Your task to perform on an android device: check battery use Image 0: 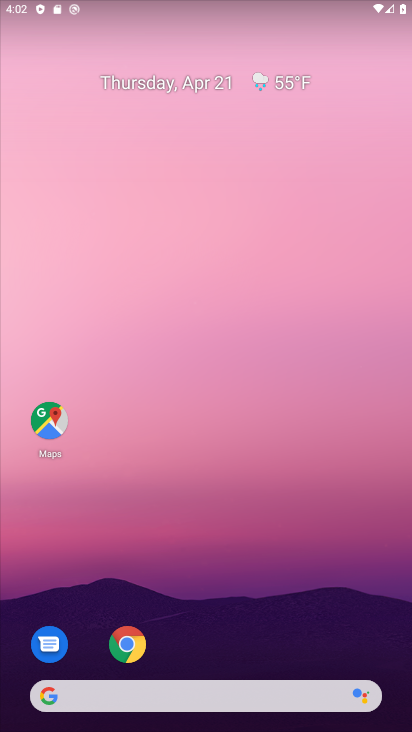
Step 0: drag from (208, 646) to (279, 115)
Your task to perform on an android device: check battery use Image 1: 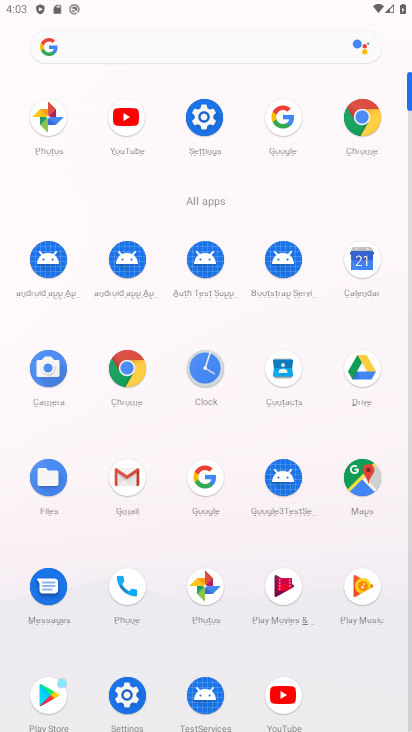
Step 1: click (204, 119)
Your task to perform on an android device: check battery use Image 2: 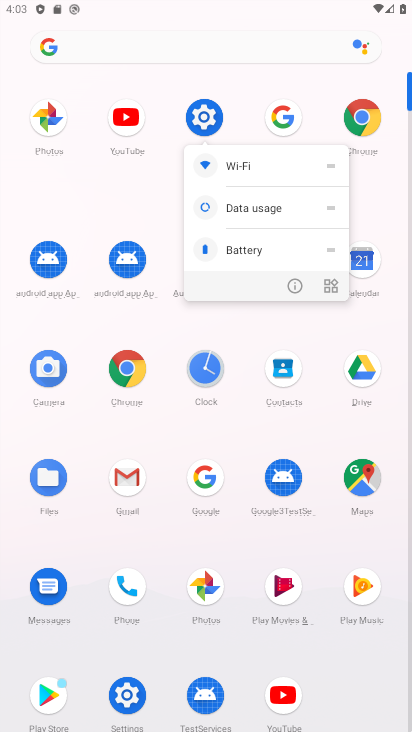
Step 2: click (198, 124)
Your task to perform on an android device: check battery use Image 3: 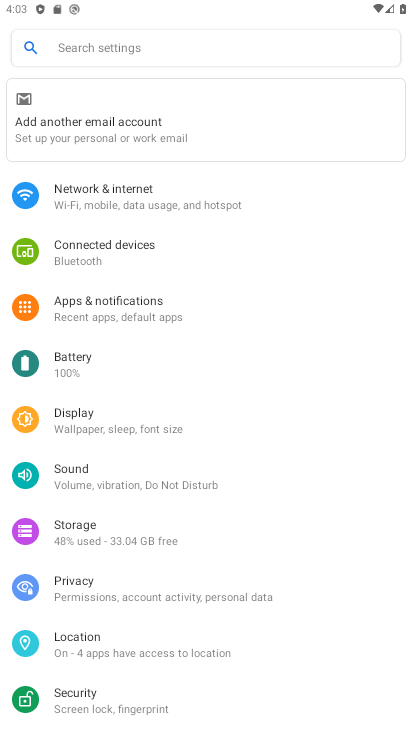
Step 3: click (71, 365)
Your task to perform on an android device: check battery use Image 4: 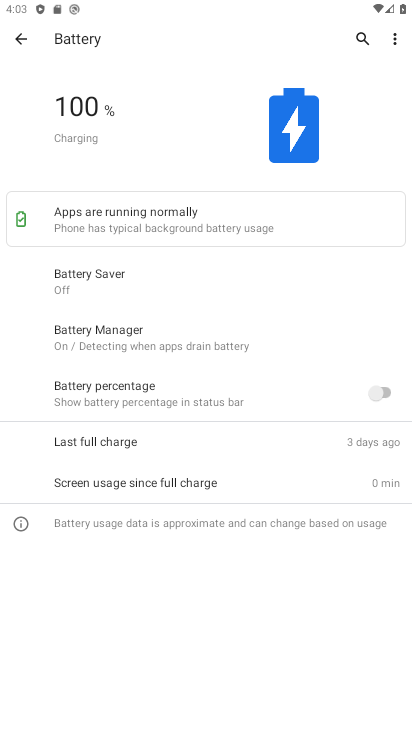
Step 4: click (396, 39)
Your task to perform on an android device: check battery use Image 5: 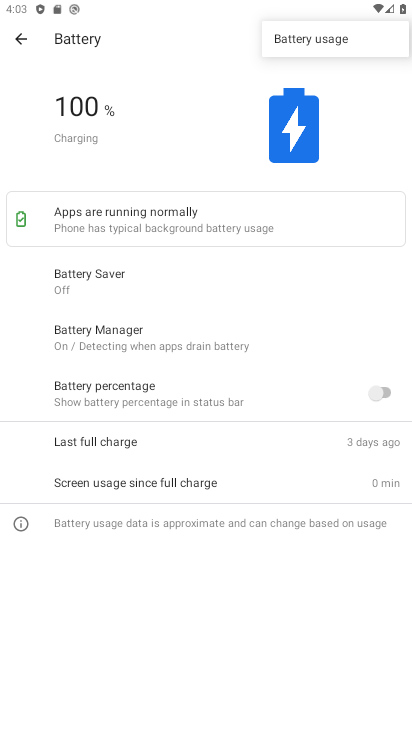
Step 5: click (324, 35)
Your task to perform on an android device: check battery use Image 6: 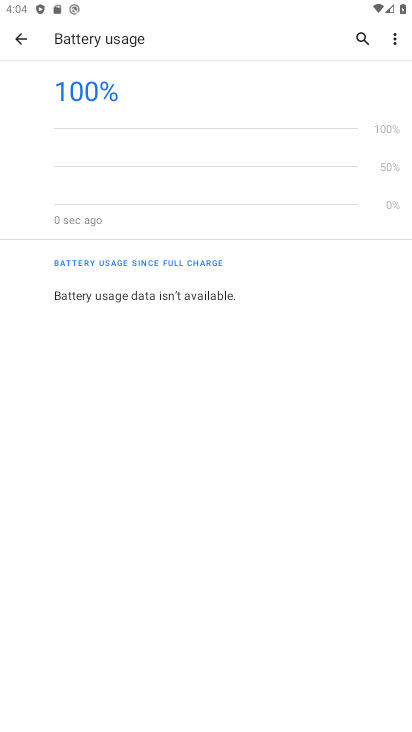
Step 6: task complete